Your task to perform on an android device: turn off notifications in google photos Image 0: 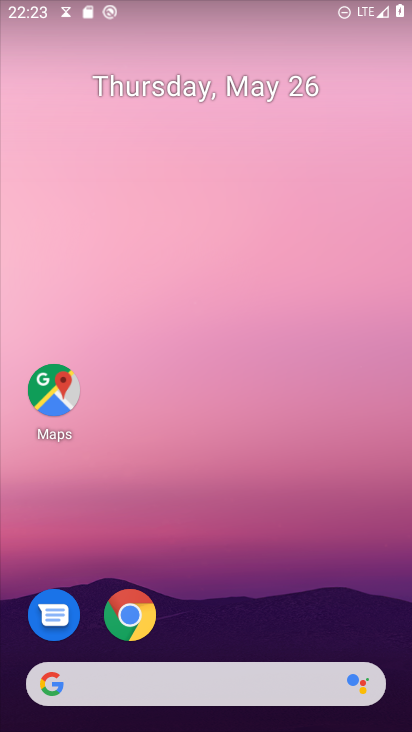
Step 0: drag from (242, 587) to (266, 212)
Your task to perform on an android device: turn off notifications in google photos Image 1: 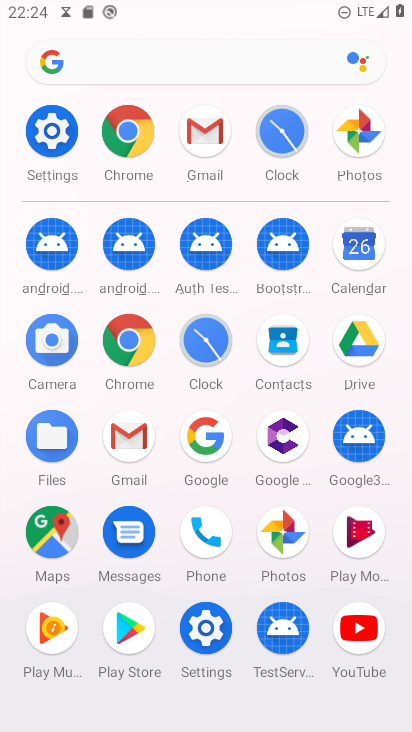
Step 1: click (283, 522)
Your task to perform on an android device: turn off notifications in google photos Image 2: 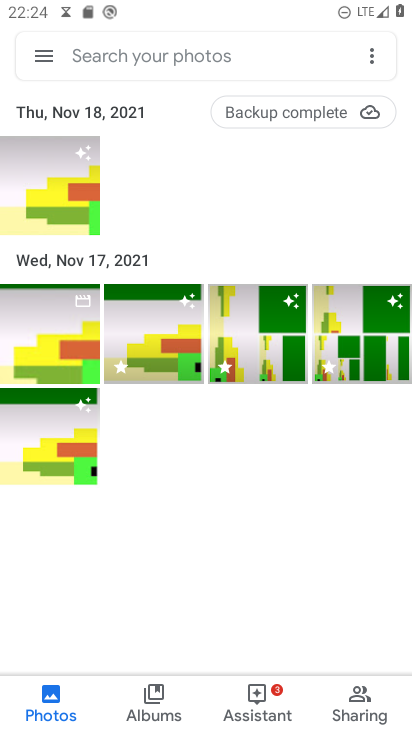
Step 2: click (37, 56)
Your task to perform on an android device: turn off notifications in google photos Image 3: 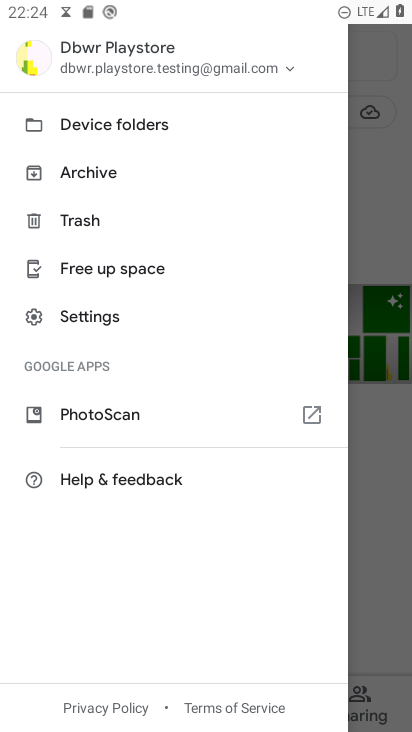
Step 3: click (101, 306)
Your task to perform on an android device: turn off notifications in google photos Image 4: 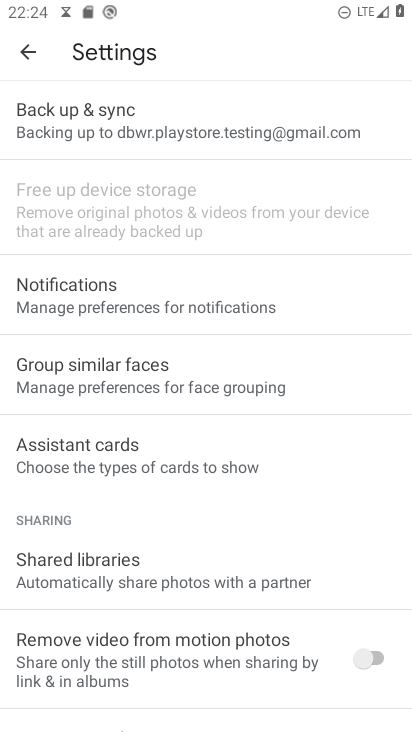
Step 4: click (118, 286)
Your task to perform on an android device: turn off notifications in google photos Image 5: 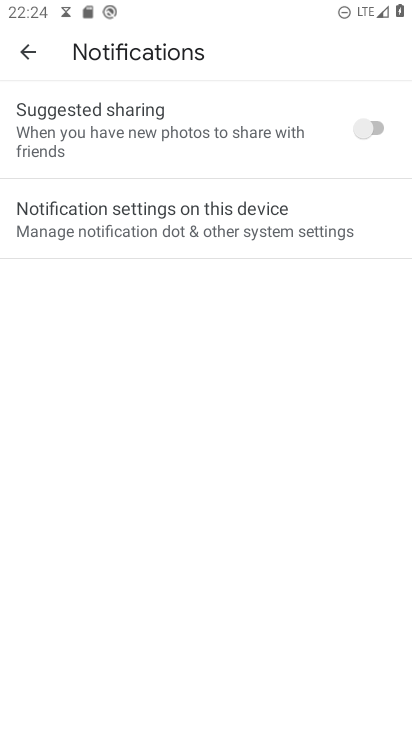
Step 5: click (220, 215)
Your task to perform on an android device: turn off notifications in google photos Image 6: 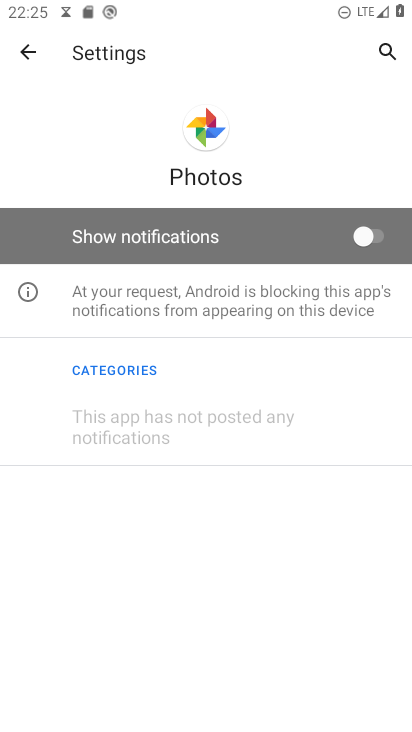
Step 6: task complete